Your task to perform on an android device: Show me popular videos on Youtube Image 0: 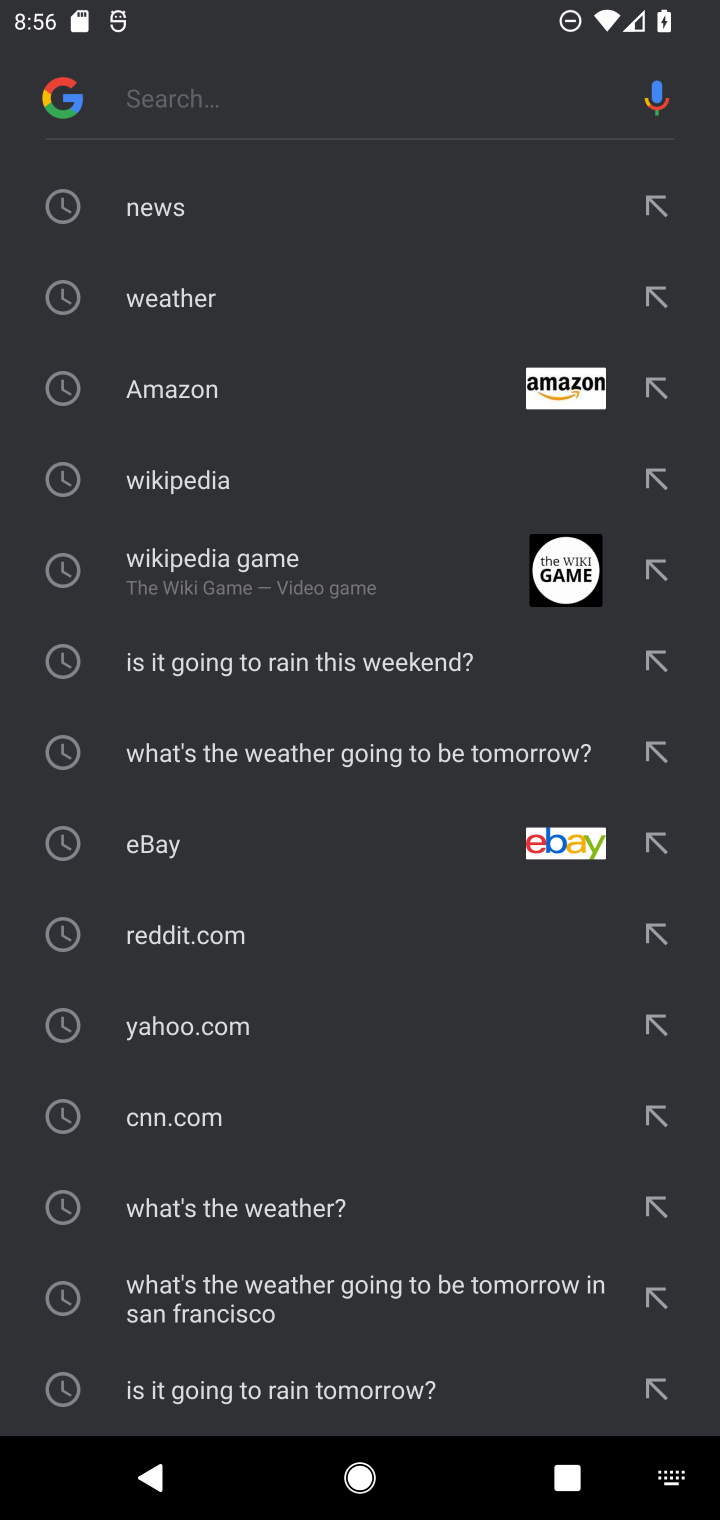
Step 0: press home button
Your task to perform on an android device: Show me popular videos on Youtube Image 1: 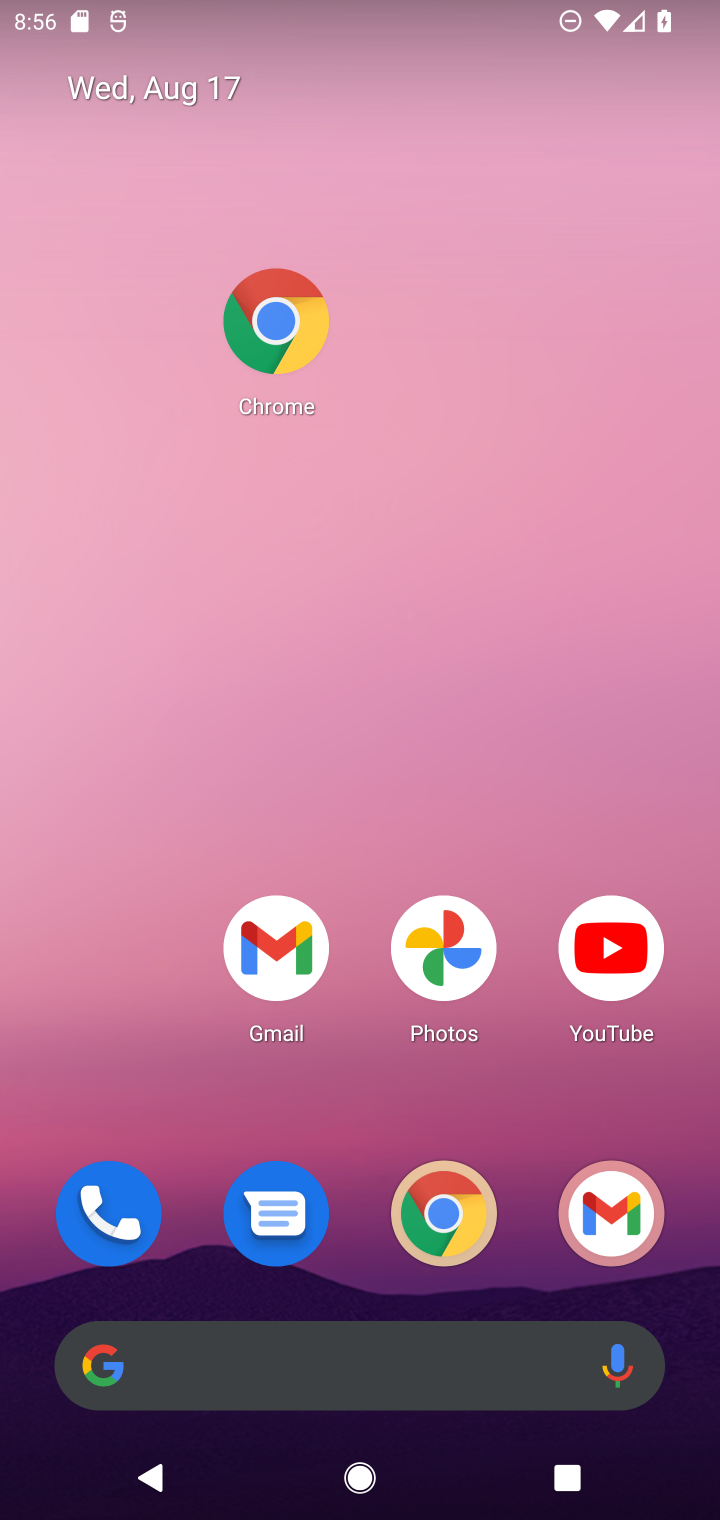
Step 1: click (589, 1013)
Your task to perform on an android device: Show me popular videos on Youtube Image 2: 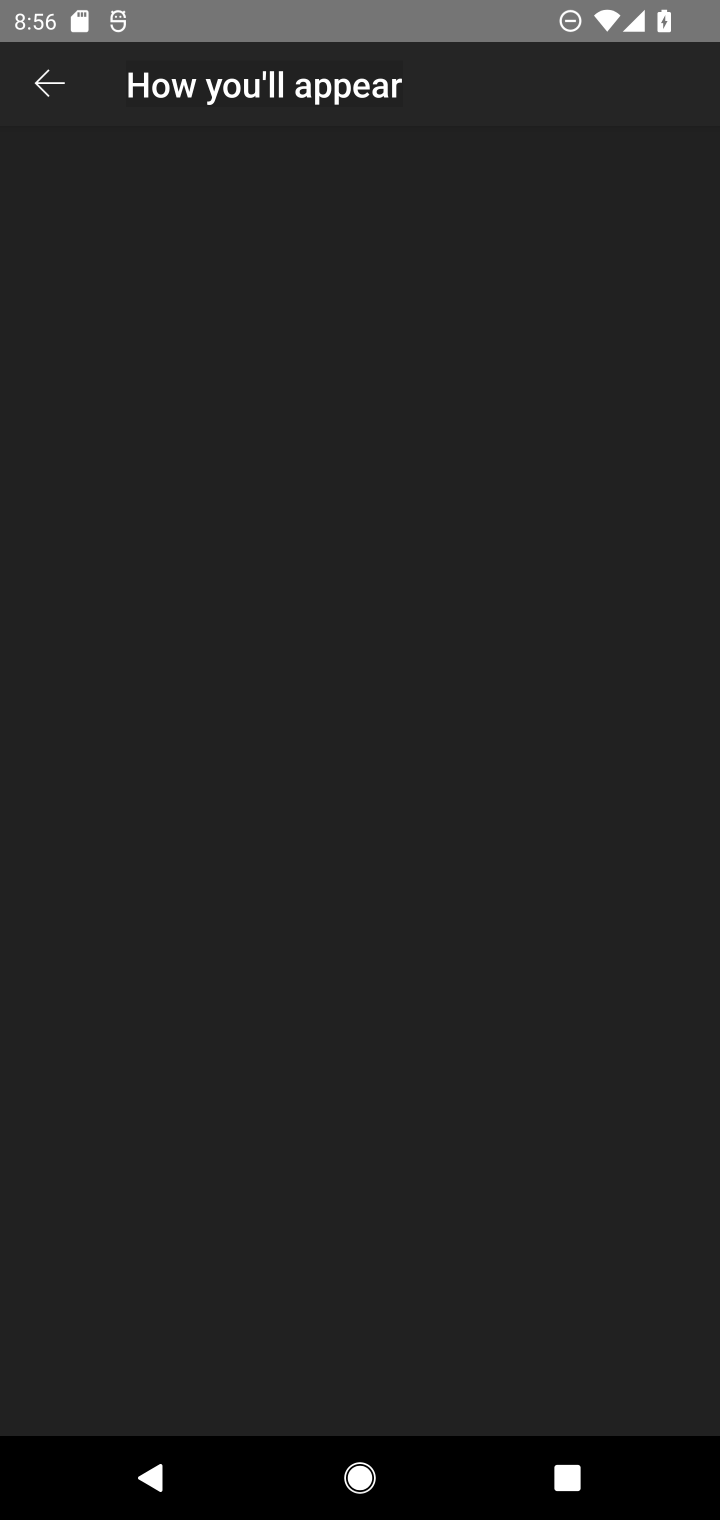
Step 2: click (35, 61)
Your task to perform on an android device: Show me popular videos on Youtube Image 3: 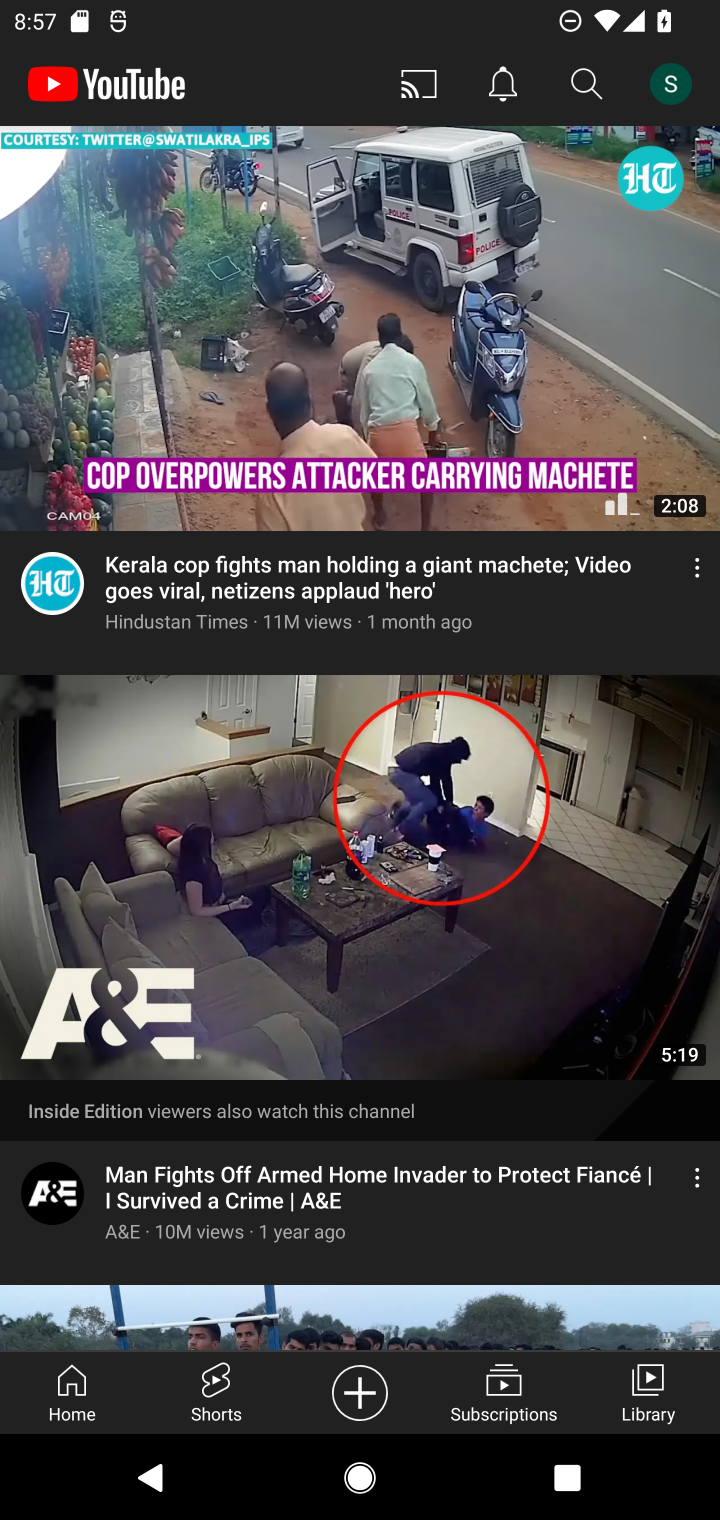
Step 3: click (636, 1404)
Your task to perform on an android device: Show me popular videos on Youtube Image 4: 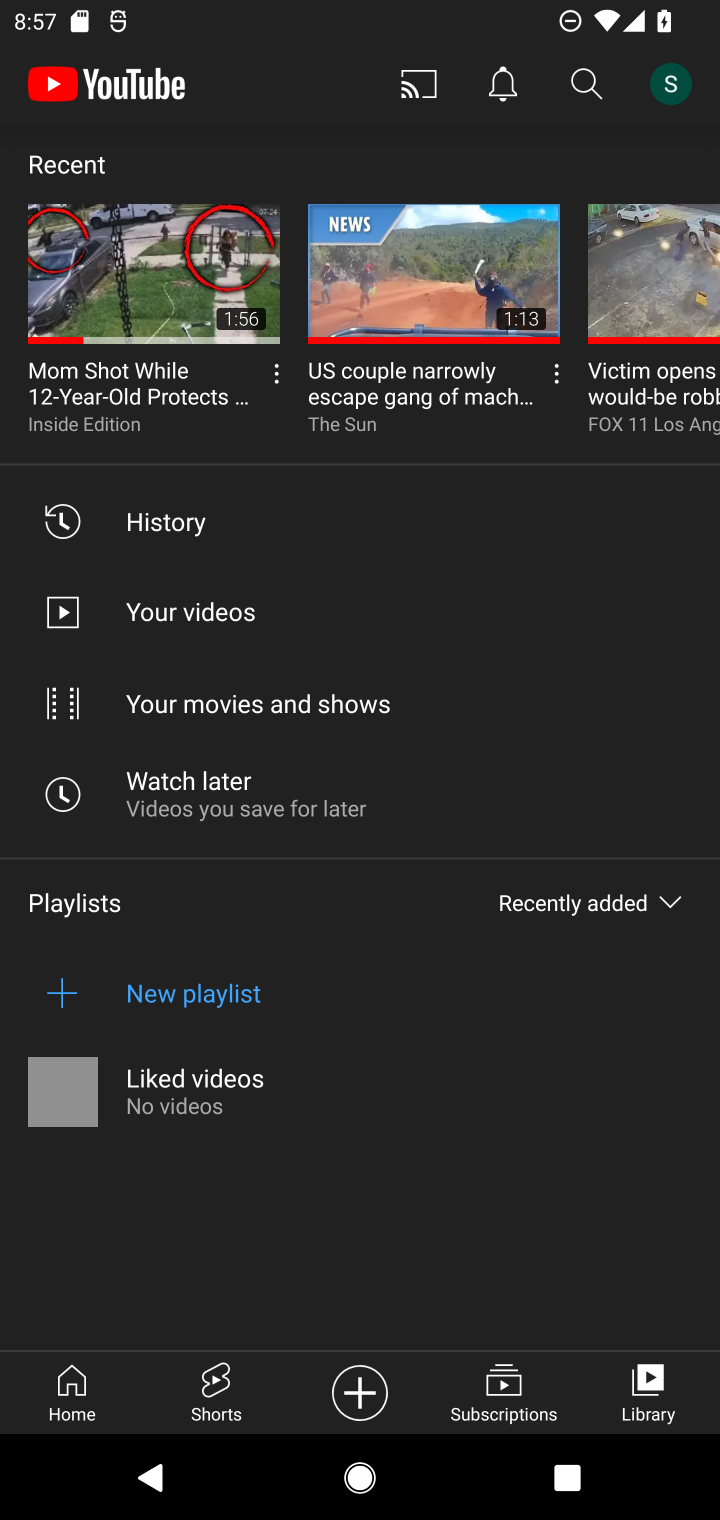
Step 4: task complete